Your task to perform on an android device: toggle translation in the chrome app Image 0: 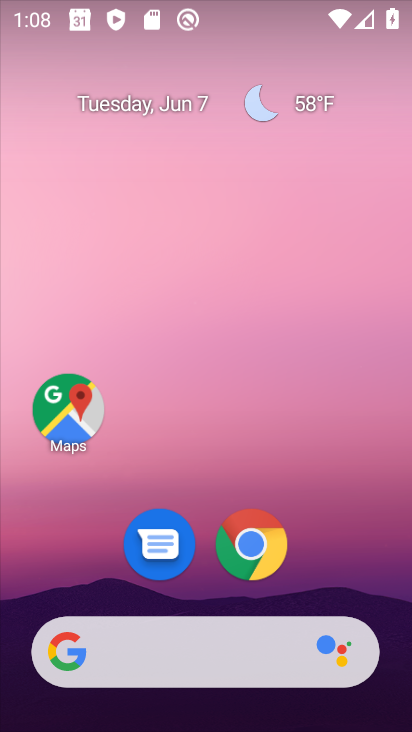
Step 0: click (249, 557)
Your task to perform on an android device: toggle translation in the chrome app Image 1: 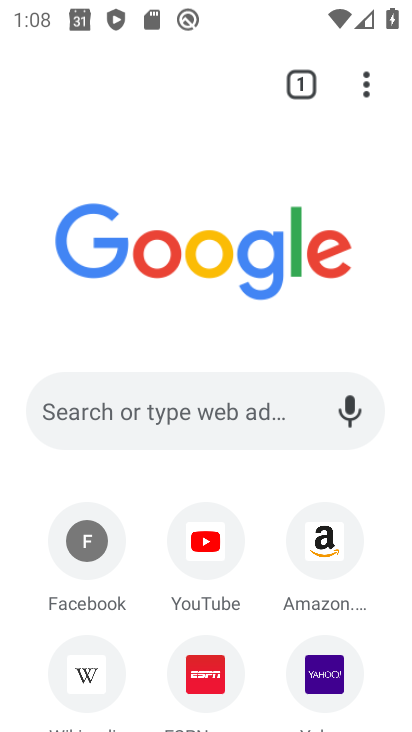
Step 1: drag from (367, 90) to (139, 588)
Your task to perform on an android device: toggle translation in the chrome app Image 2: 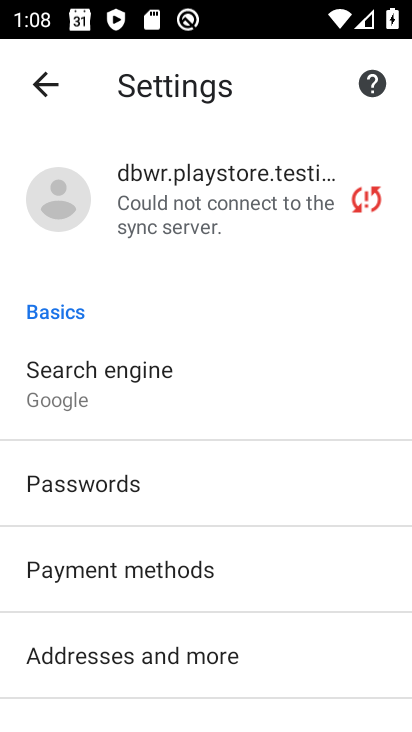
Step 2: drag from (139, 588) to (212, 182)
Your task to perform on an android device: toggle translation in the chrome app Image 3: 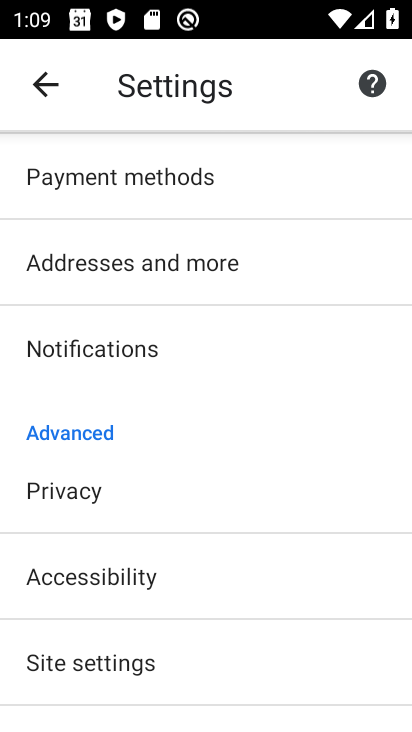
Step 3: drag from (154, 641) to (266, 167)
Your task to perform on an android device: toggle translation in the chrome app Image 4: 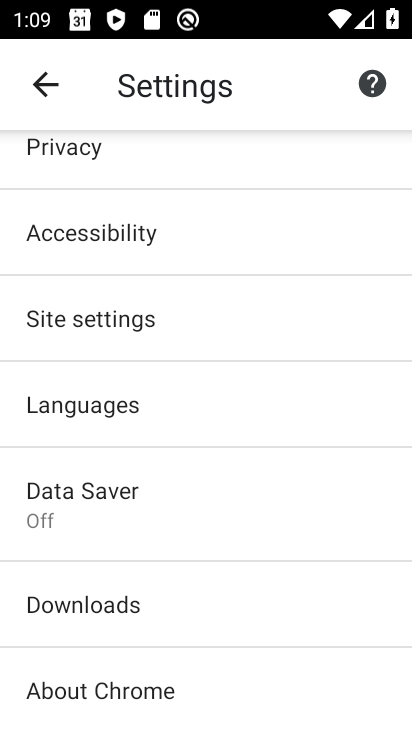
Step 4: click (114, 408)
Your task to perform on an android device: toggle translation in the chrome app Image 5: 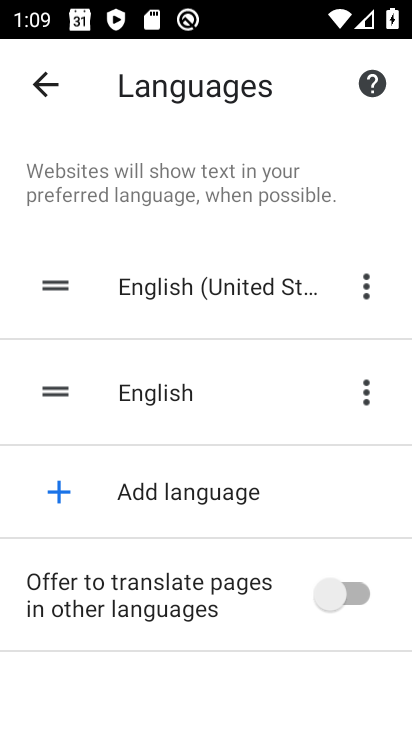
Step 5: click (364, 592)
Your task to perform on an android device: toggle translation in the chrome app Image 6: 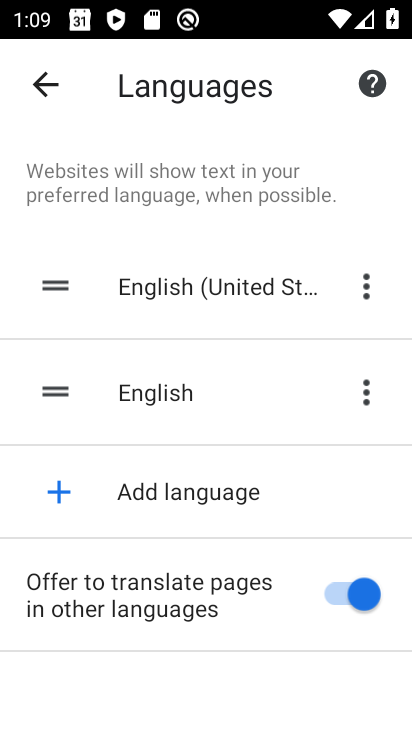
Step 6: task complete